Your task to perform on an android device: Show me the alarms in the clock app Image 0: 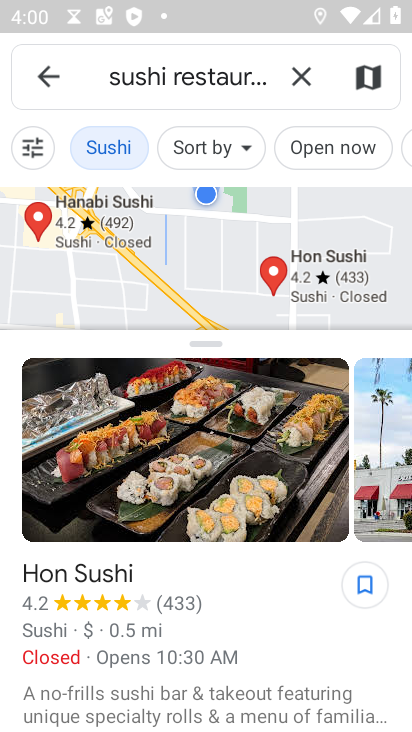
Step 0: press home button
Your task to perform on an android device: Show me the alarms in the clock app Image 1: 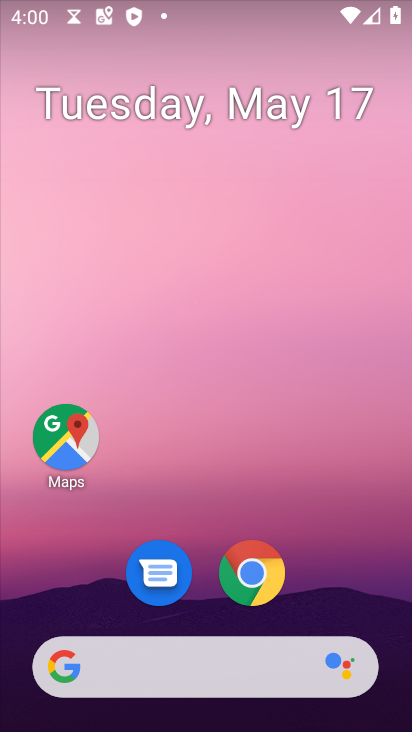
Step 1: drag from (334, 597) to (204, 173)
Your task to perform on an android device: Show me the alarms in the clock app Image 2: 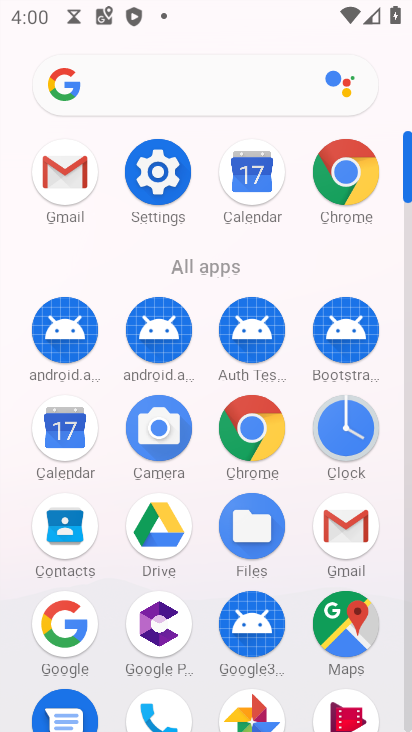
Step 2: click (356, 444)
Your task to perform on an android device: Show me the alarms in the clock app Image 3: 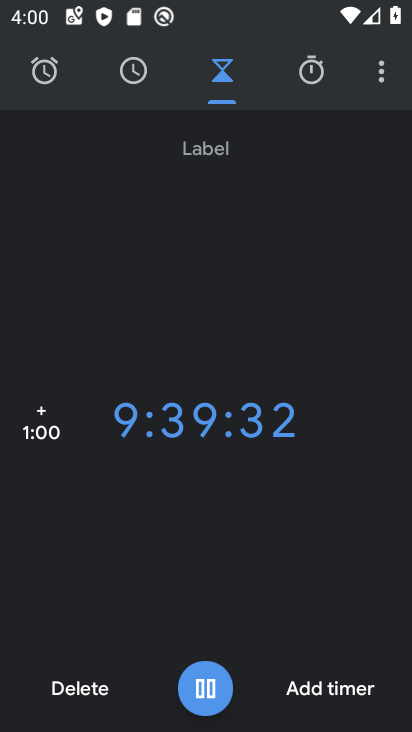
Step 3: click (53, 74)
Your task to perform on an android device: Show me the alarms in the clock app Image 4: 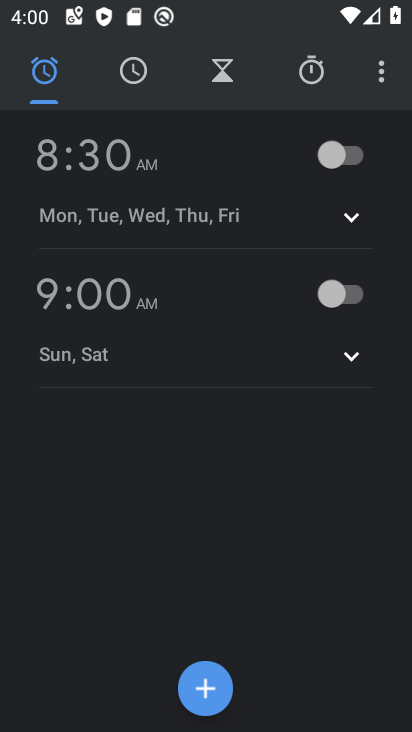
Step 4: task complete